Your task to perform on an android device: Clear all items from cart on amazon. Image 0: 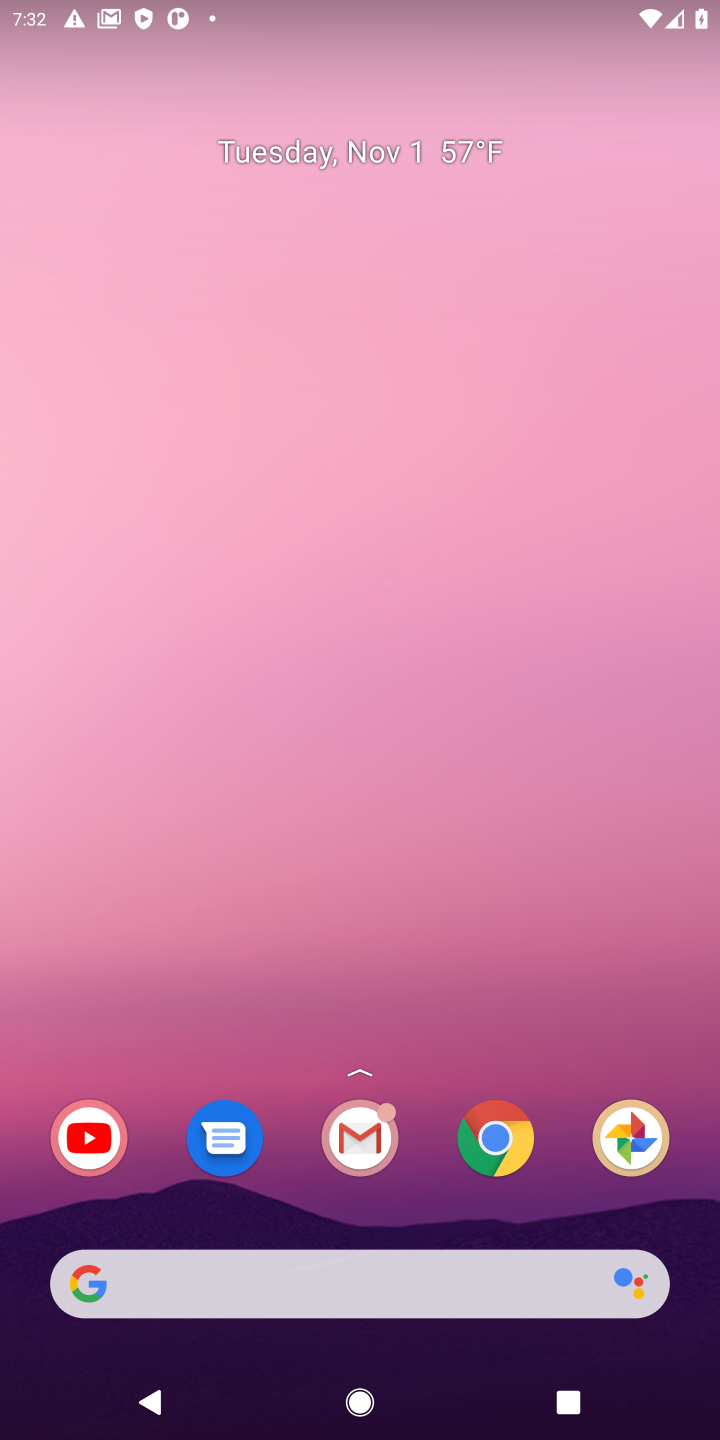
Step 0: click (492, 1149)
Your task to perform on an android device: Clear all items from cart on amazon. Image 1: 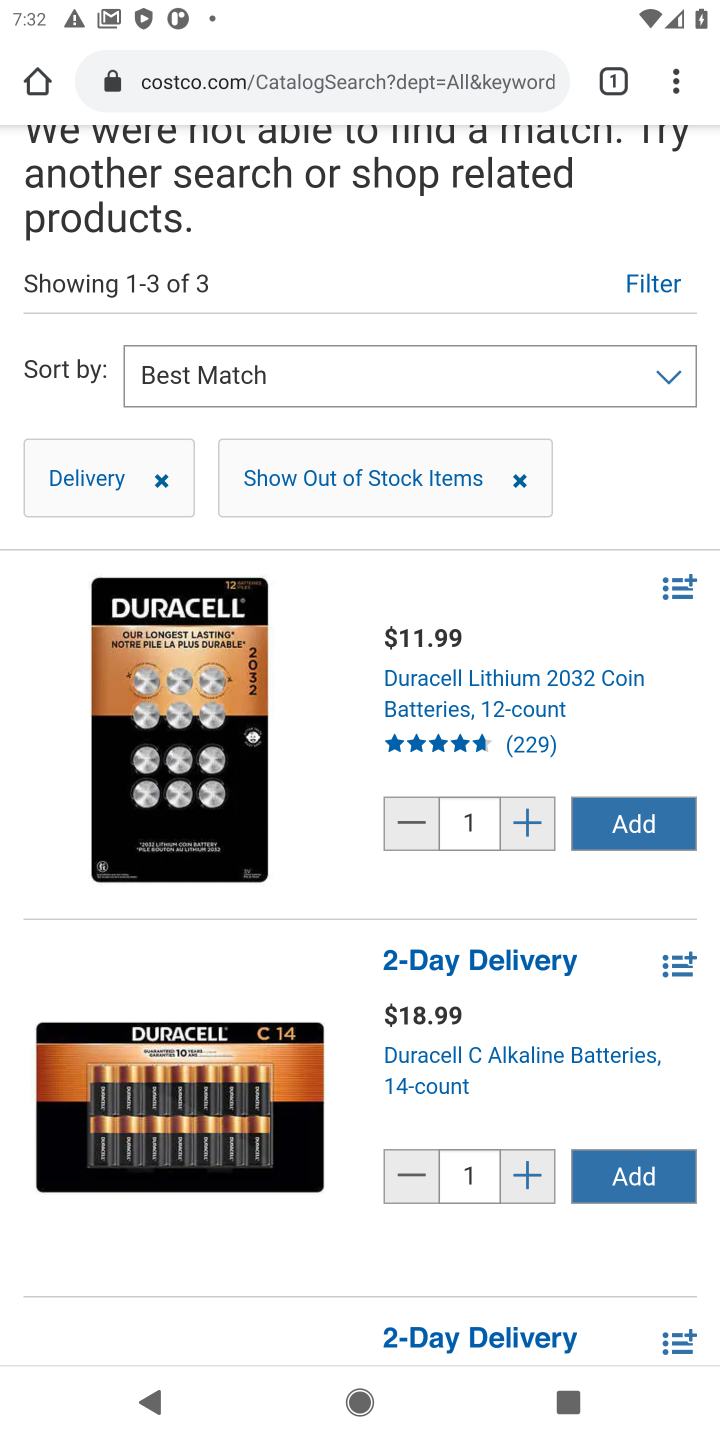
Step 1: click (334, 65)
Your task to perform on an android device: Clear all items from cart on amazon. Image 2: 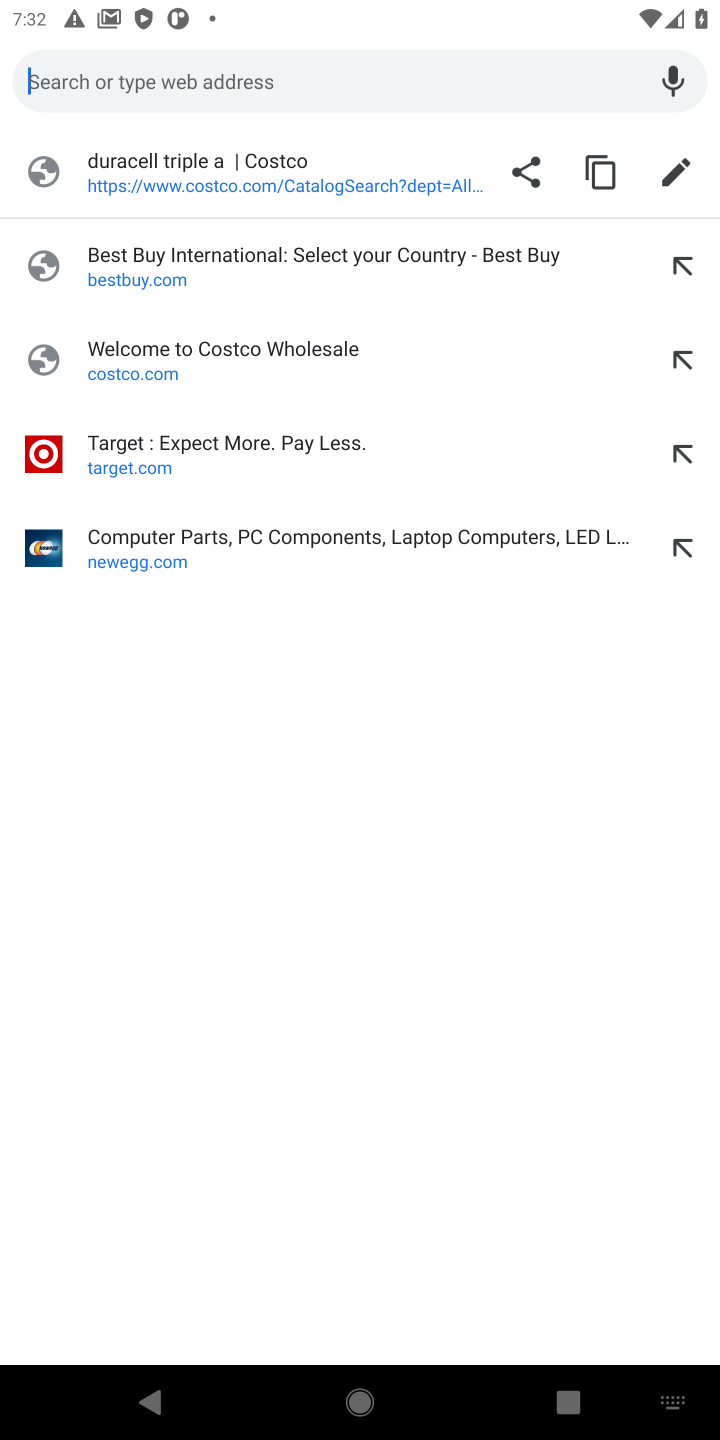
Step 2: type "amazon.com"
Your task to perform on an android device: Clear all items from cart on amazon. Image 3: 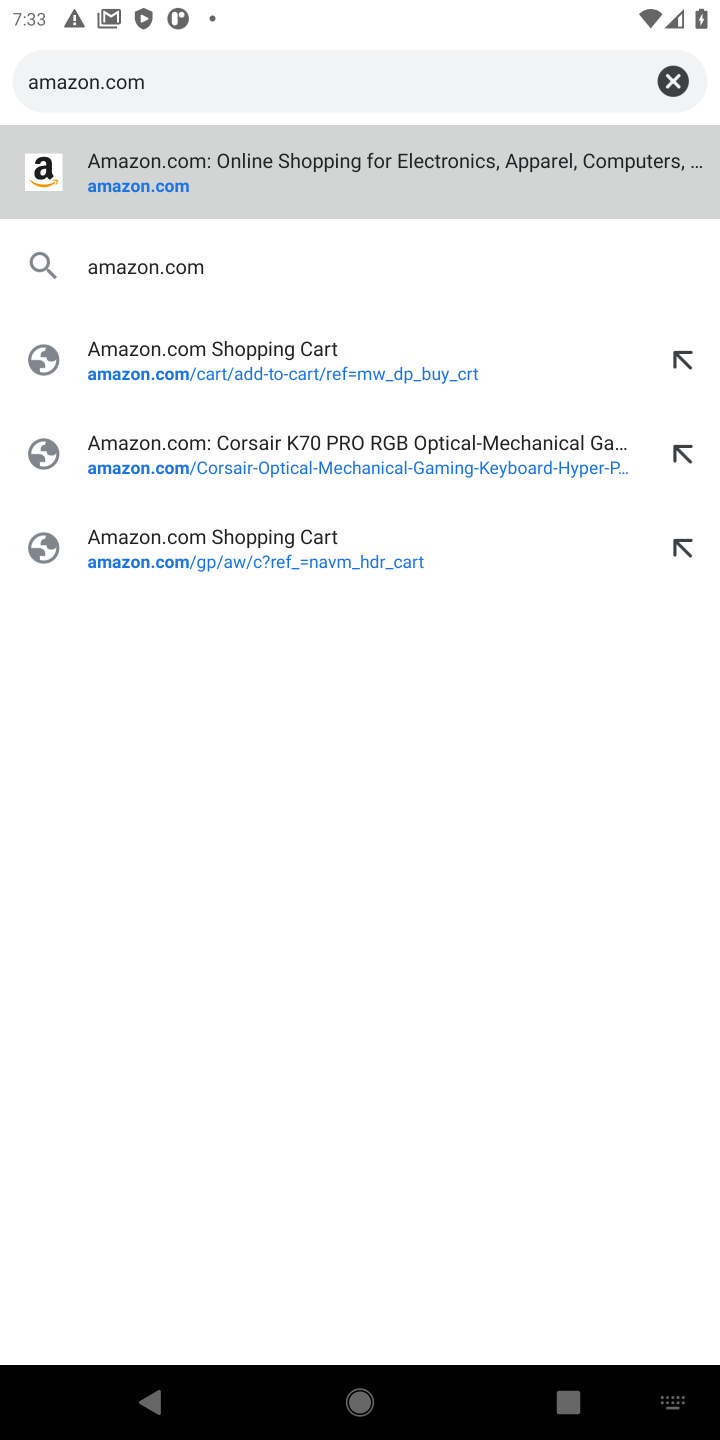
Step 3: click (106, 188)
Your task to perform on an android device: Clear all items from cart on amazon. Image 4: 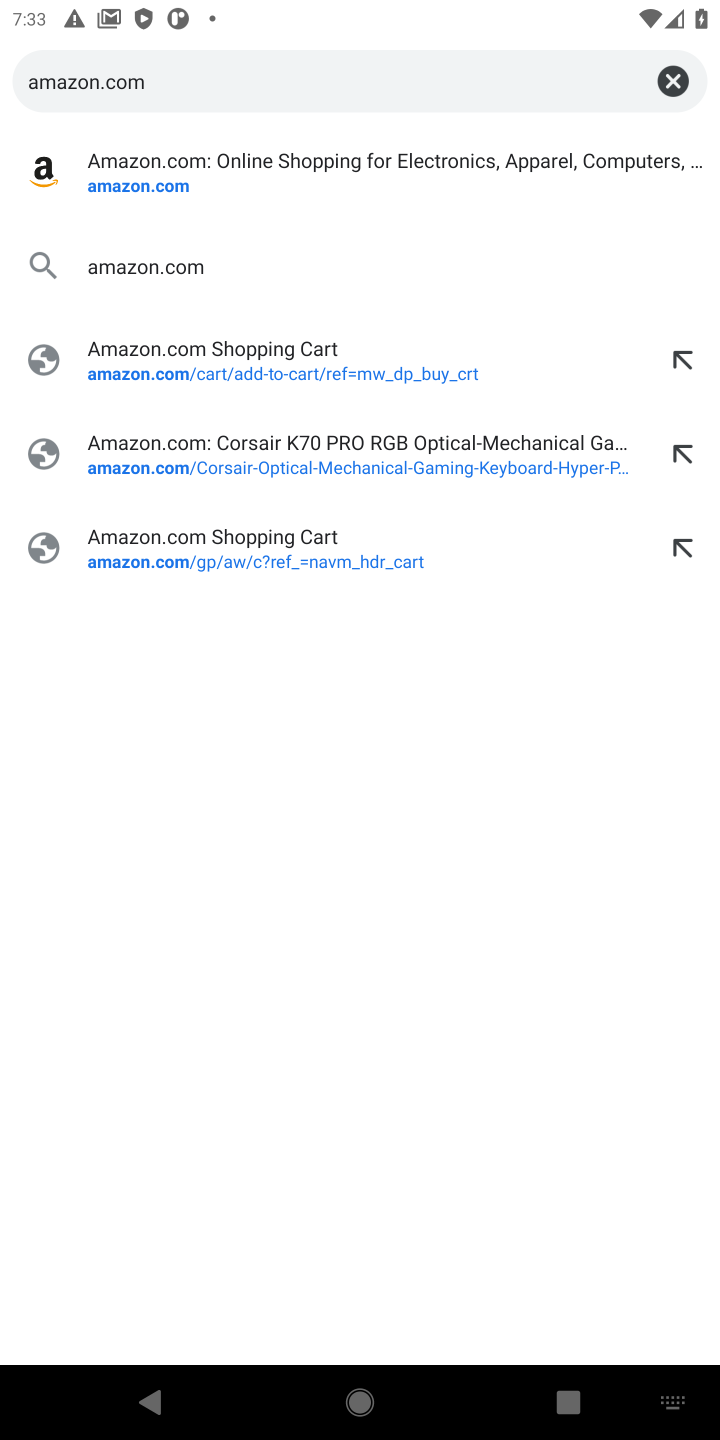
Step 4: click (123, 193)
Your task to perform on an android device: Clear all items from cart on amazon. Image 5: 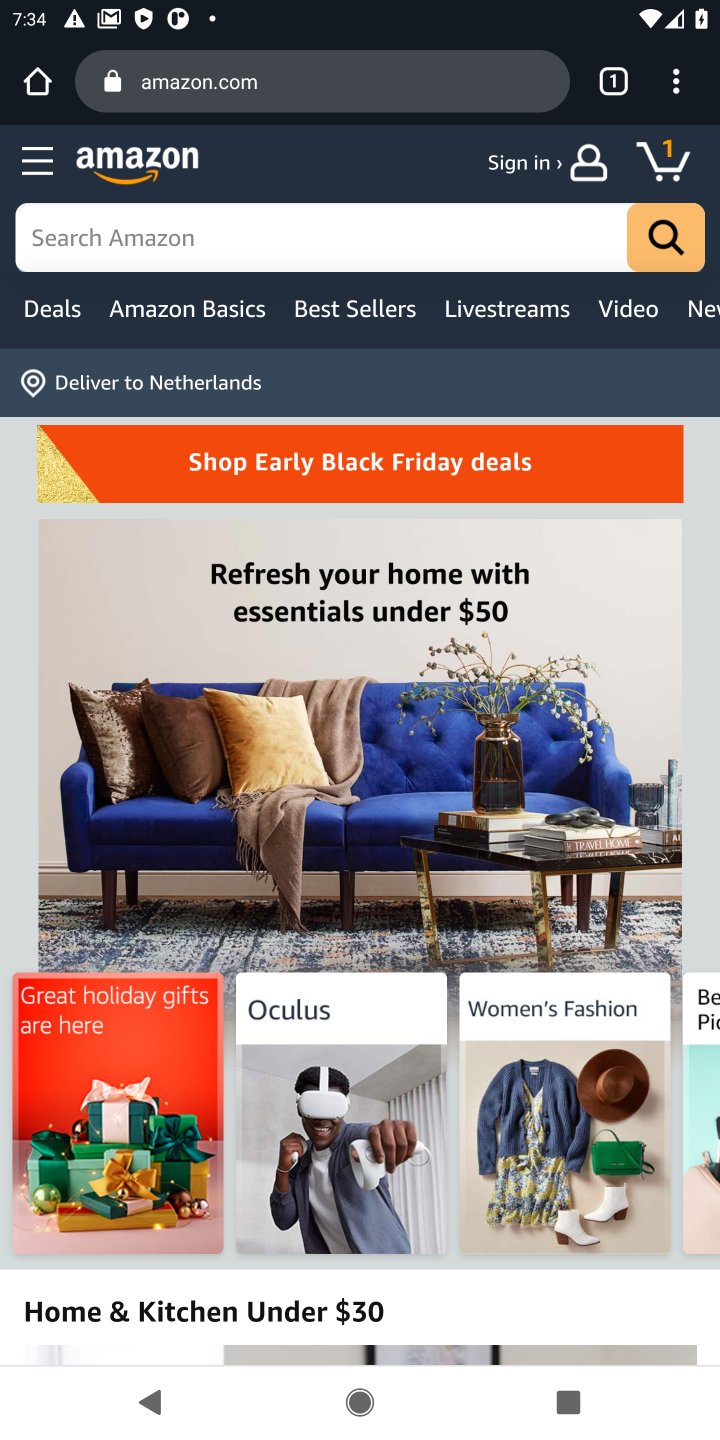
Step 5: click (668, 169)
Your task to perform on an android device: Clear all items from cart on amazon. Image 6: 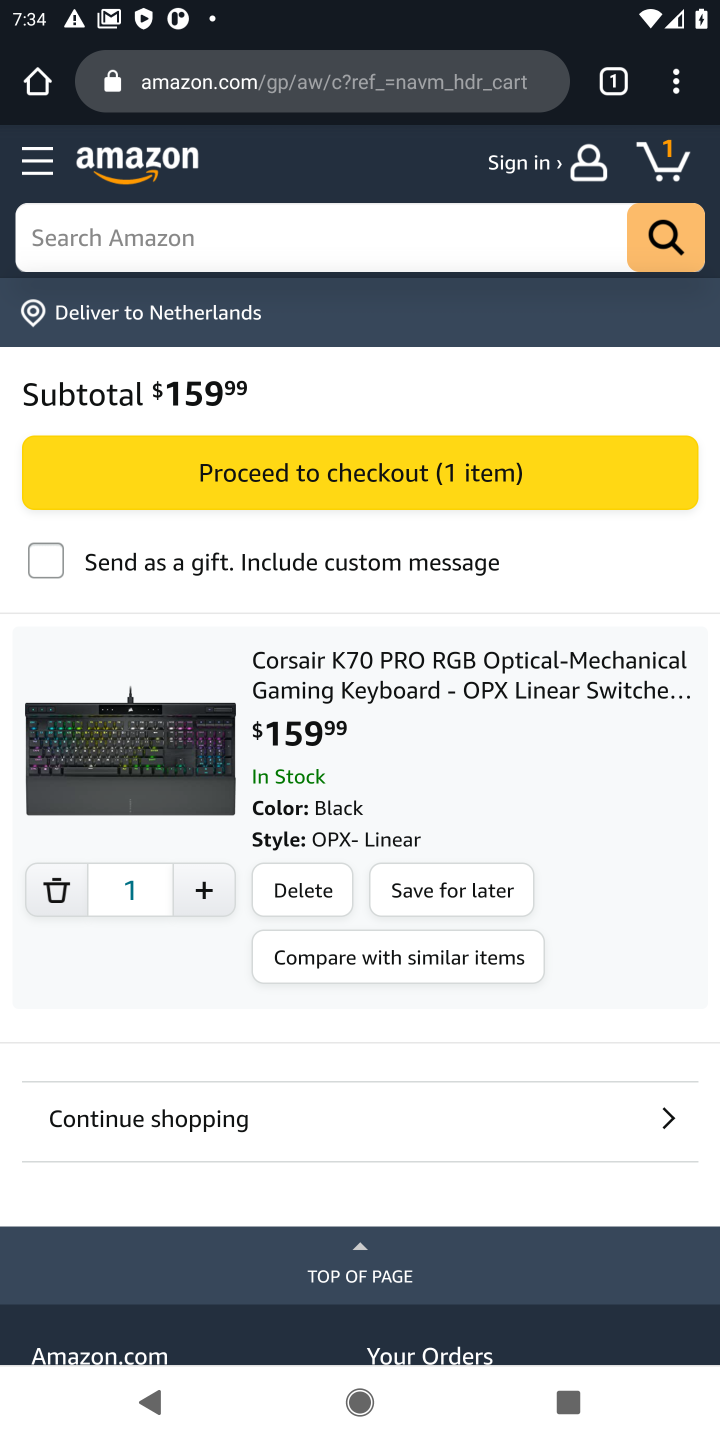
Step 6: click (303, 883)
Your task to perform on an android device: Clear all items from cart on amazon. Image 7: 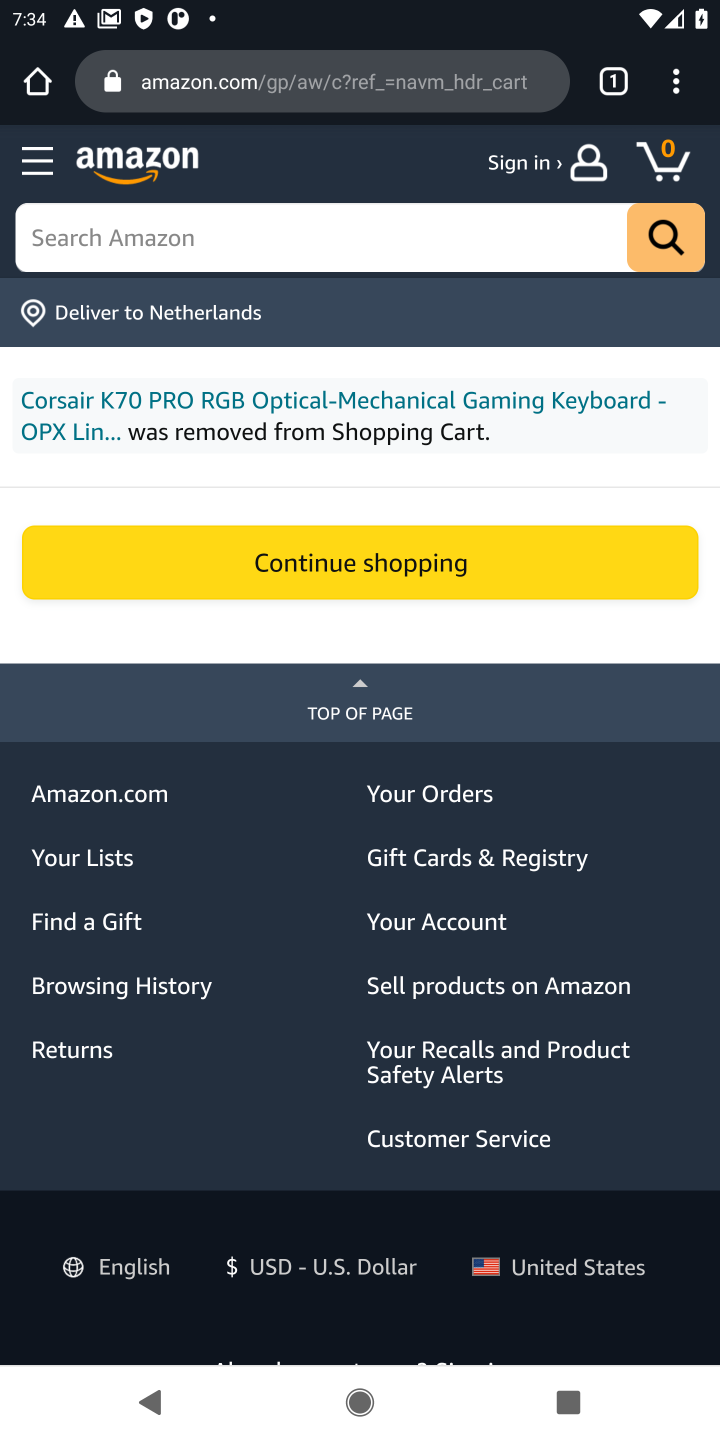
Step 7: task complete